Your task to perform on an android device: add a label to a message in the gmail app Image 0: 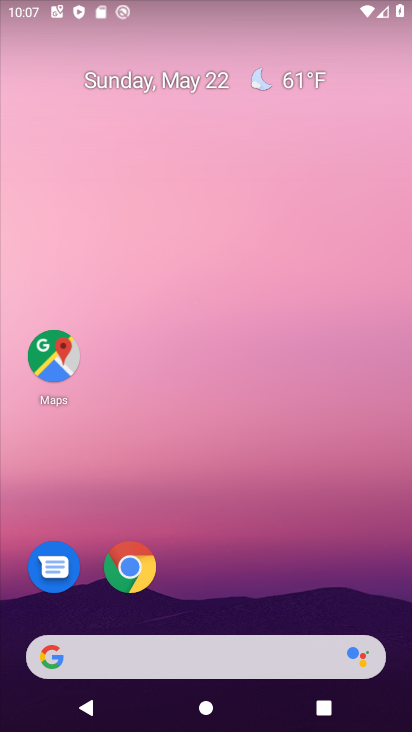
Step 0: drag from (187, 607) to (106, 15)
Your task to perform on an android device: add a label to a message in the gmail app Image 1: 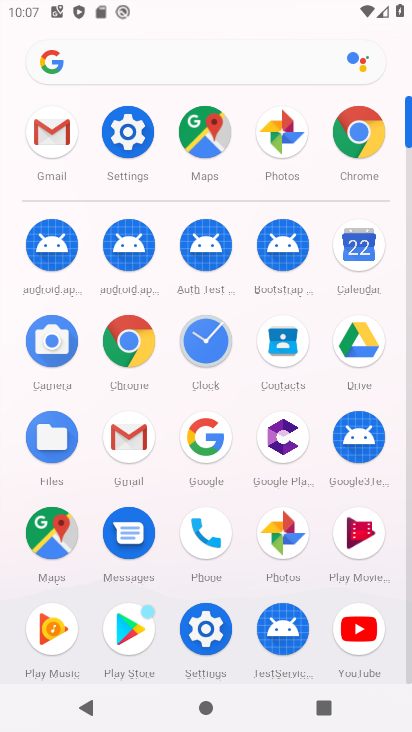
Step 1: click (125, 449)
Your task to perform on an android device: add a label to a message in the gmail app Image 2: 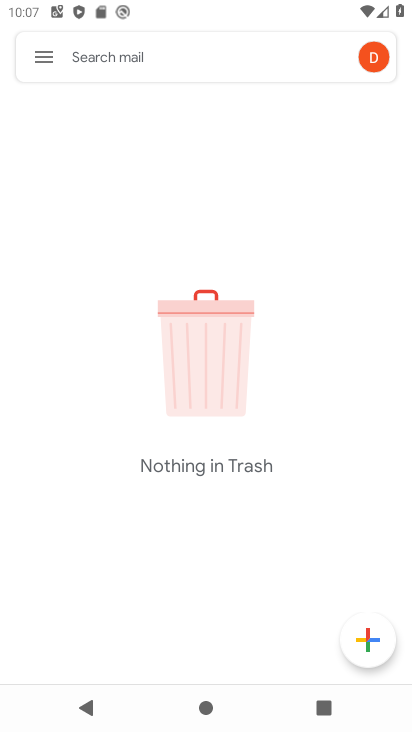
Step 2: click (33, 50)
Your task to perform on an android device: add a label to a message in the gmail app Image 3: 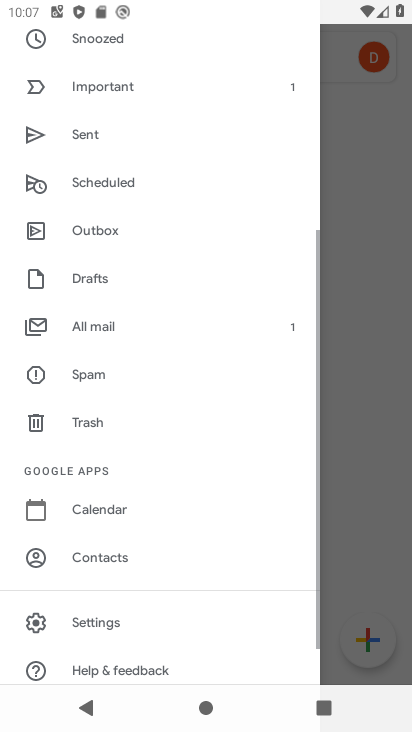
Step 3: drag from (101, 104) to (124, 615)
Your task to perform on an android device: add a label to a message in the gmail app Image 4: 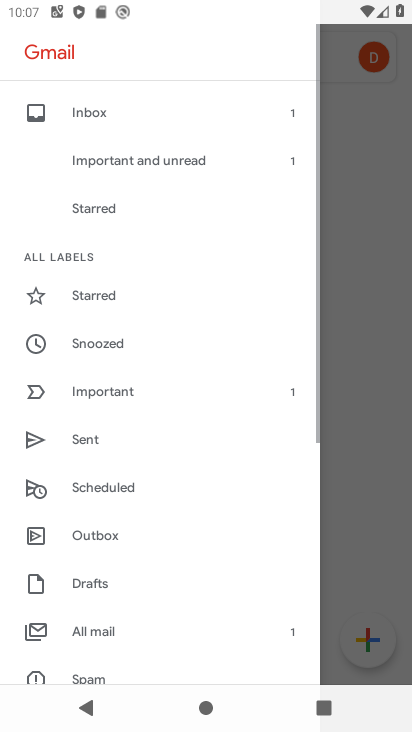
Step 4: click (88, 119)
Your task to perform on an android device: add a label to a message in the gmail app Image 5: 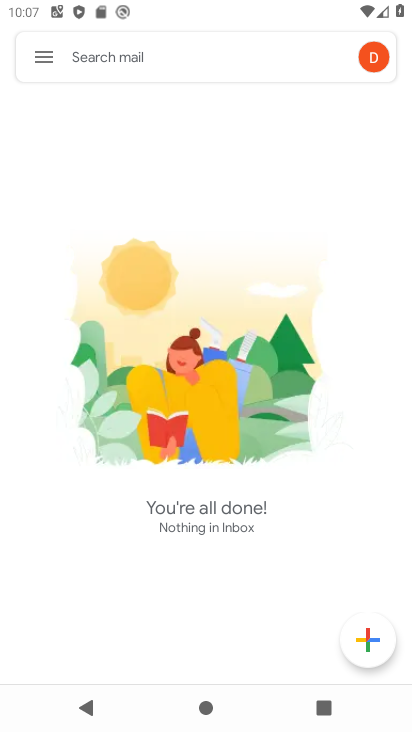
Step 5: task complete